Your task to perform on an android device: toggle sleep mode Image 0: 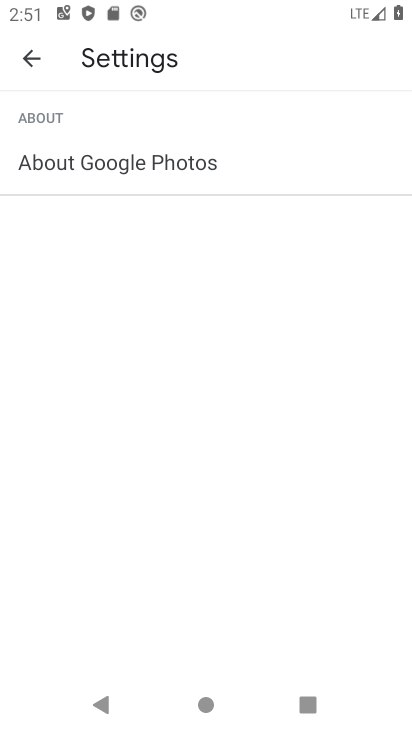
Step 0: press home button
Your task to perform on an android device: toggle sleep mode Image 1: 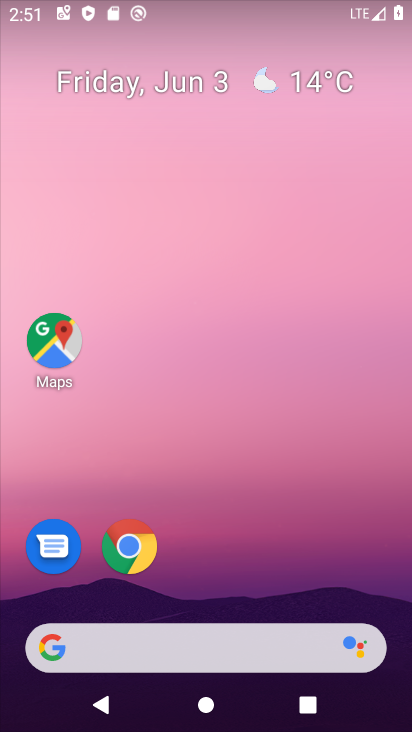
Step 1: drag from (219, 539) to (235, 136)
Your task to perform on an android device: toggle sleep mode Image 2: 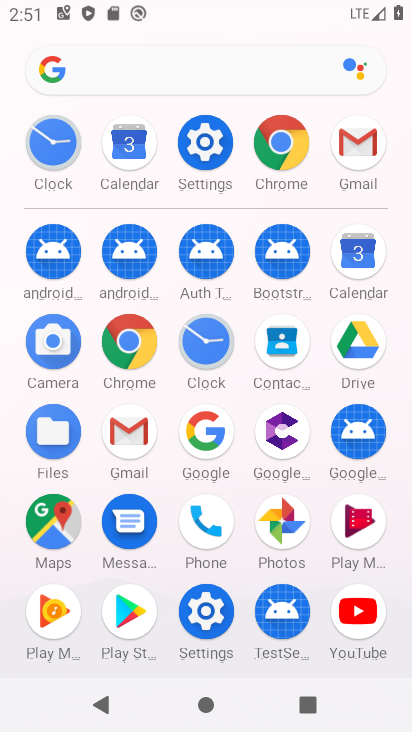
Step 2: click (192, 129)
Your task to perform on an android device: toggle sleep mode Image 3: 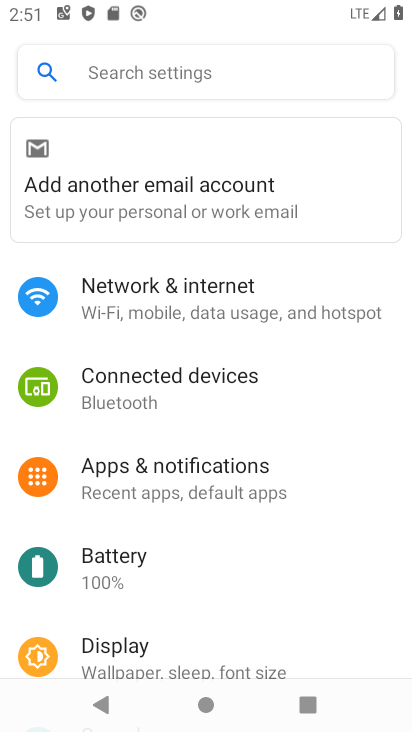
Step 3: click (107, 651)
Your task to perform on an android device: toggle sleep mode Image 4: 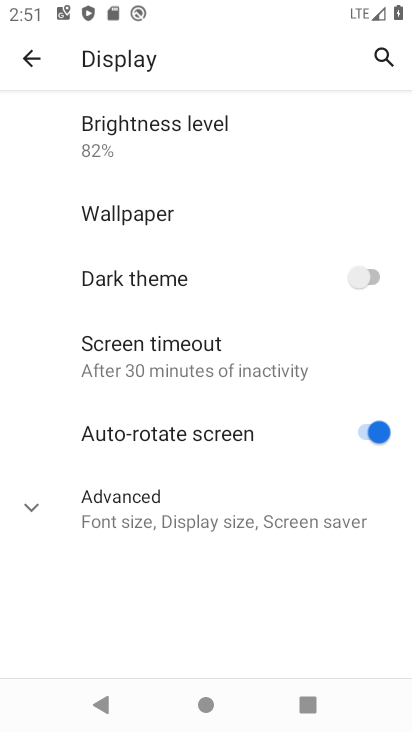
Step 4: click (100, 368)
Your task to perform on an android device: toggle sleep mode Image 5: 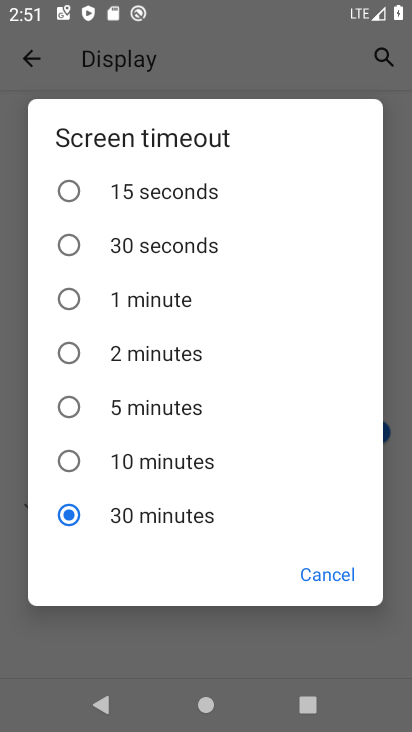
Step 5: click (100, 367)
Your task to perform on an android device: toggle sleep mode Image 6: 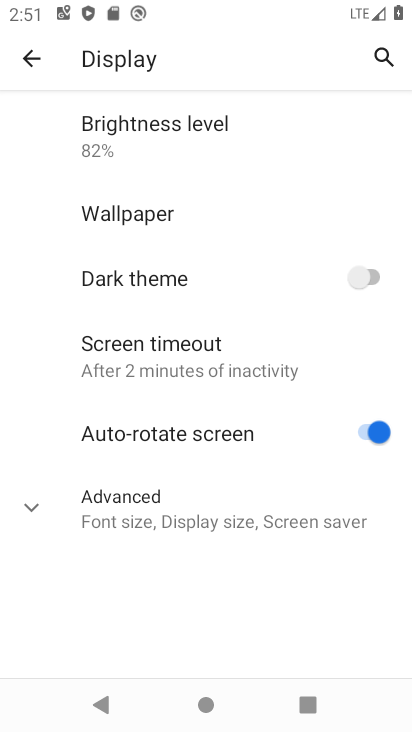
Step 6: task complete